Your task to perform on an android device: Search for a new desk on IKEA Image 0: 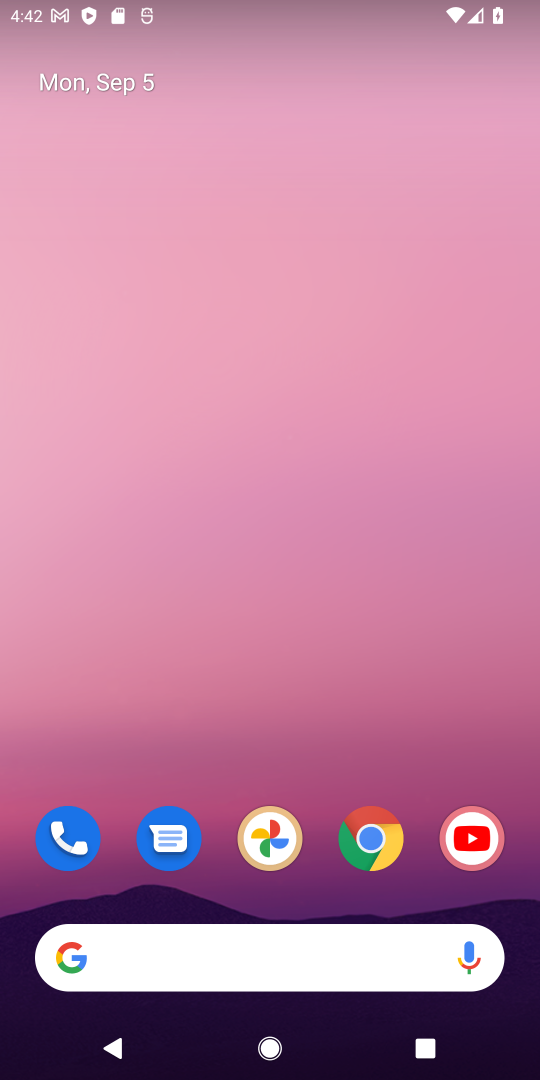
Step 0: drag from (249, 773) to (370, 337)
Your task to perform on an android device: Search for a new desk on IKEA Image 1: 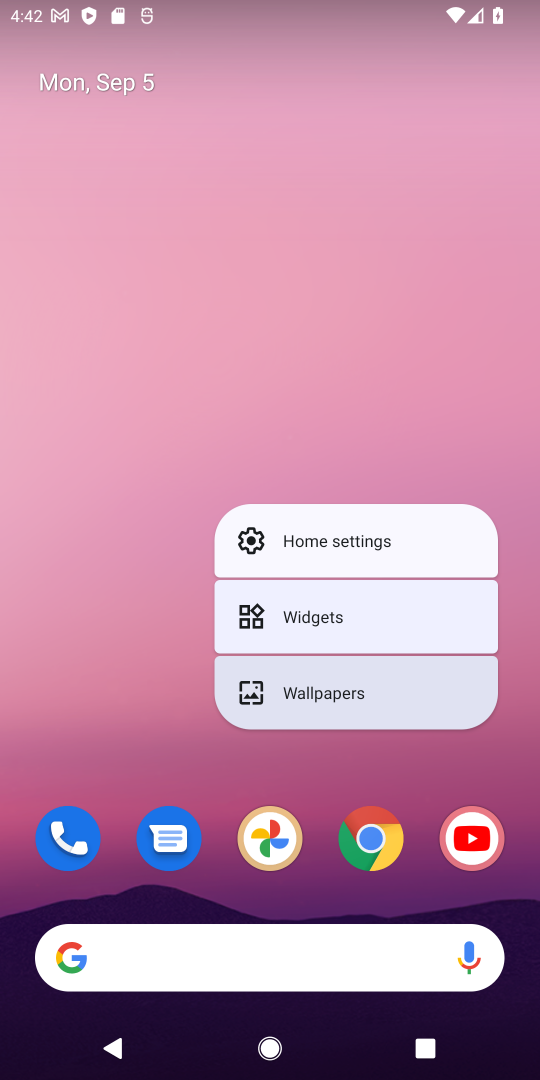
Step 1: click (181, 407)
Your task to perform on an android device: Search for a new desk on IKEA Image 2: 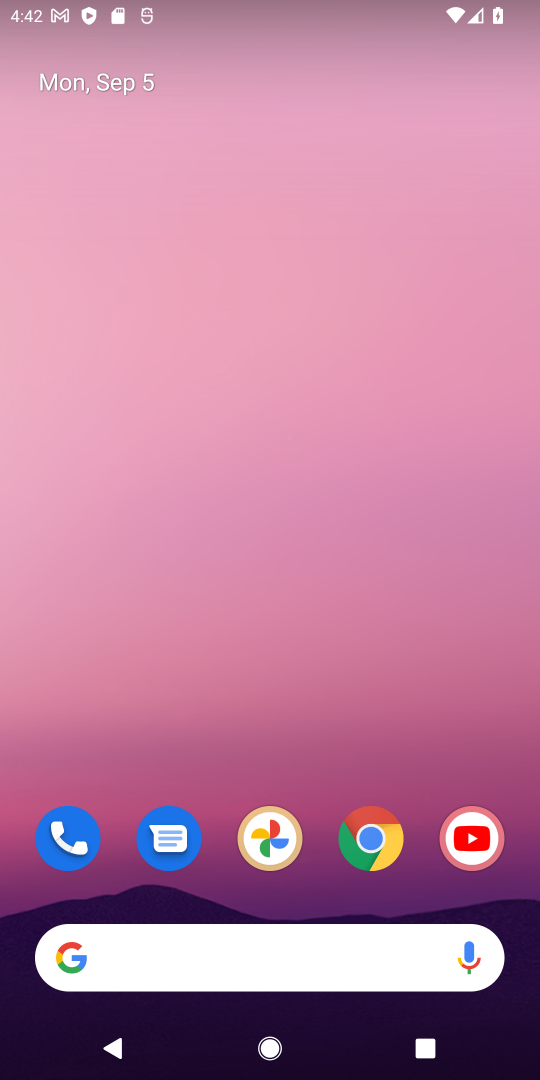
Step 2: drag from (316, 868) to (378, 51)
Your task to perform on an android device: Search for a new desk on IKEA Image 3: 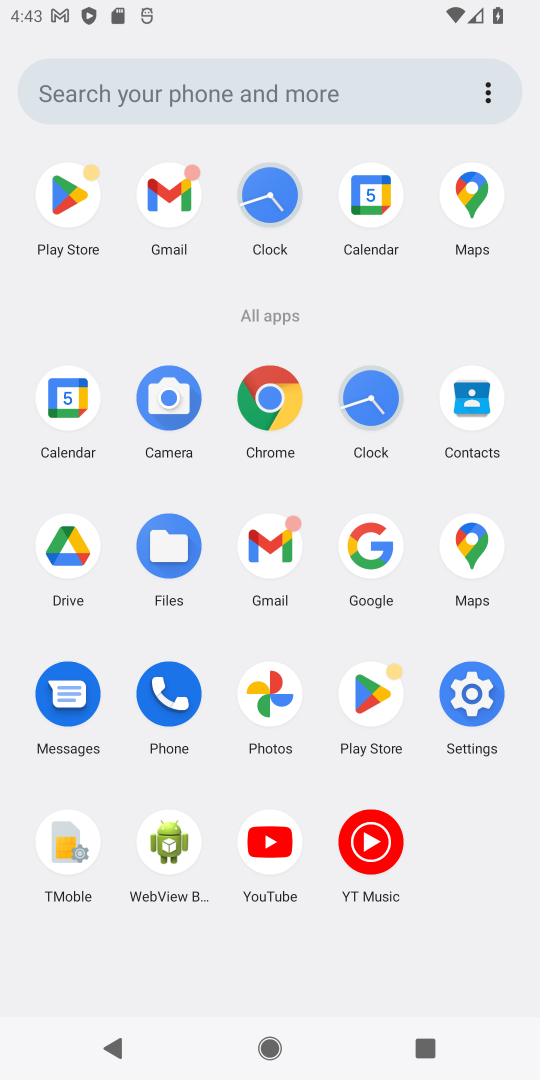
Step 3: click (277, 409)
Your task to perform on an android device: Search for a new desk on IKEA Image 4: 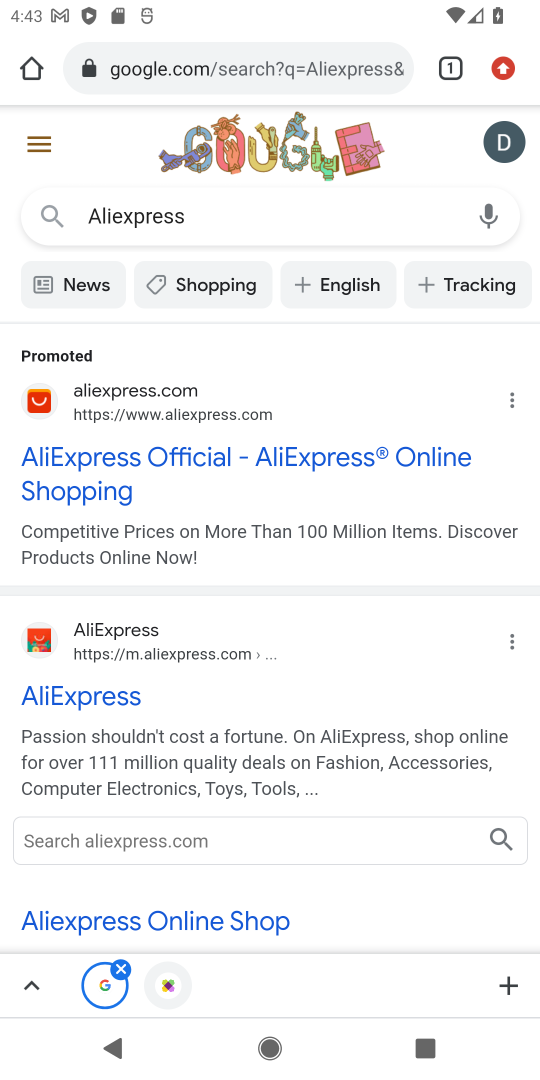
Step 4: click (189, 66)
Your task to perform on an android device: Search for a new desk on IKEA Image 5: 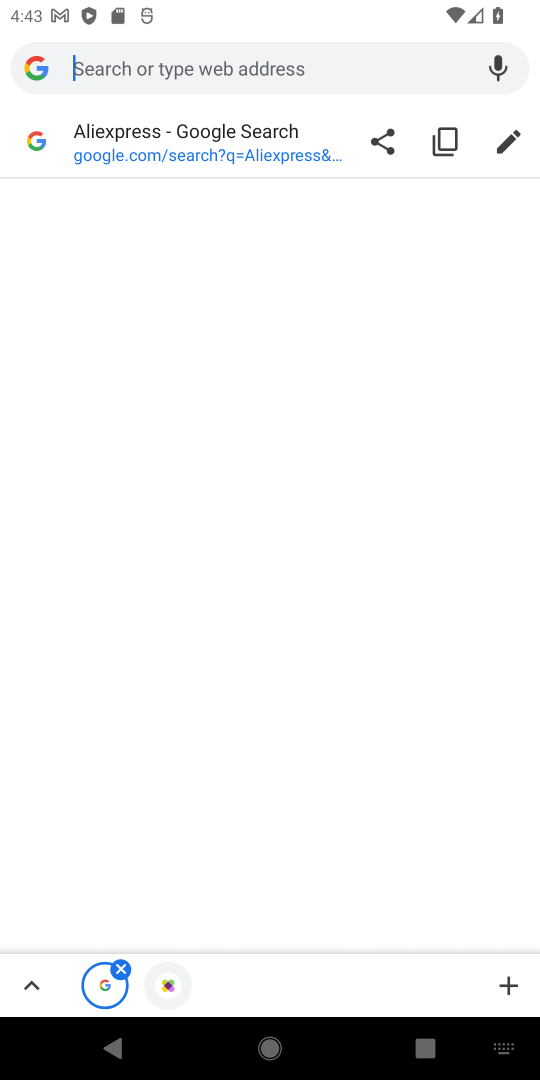
Step 5: type " IKEA"
Your task to perform on an android device: Search for a new desk on IKEA Image 6: 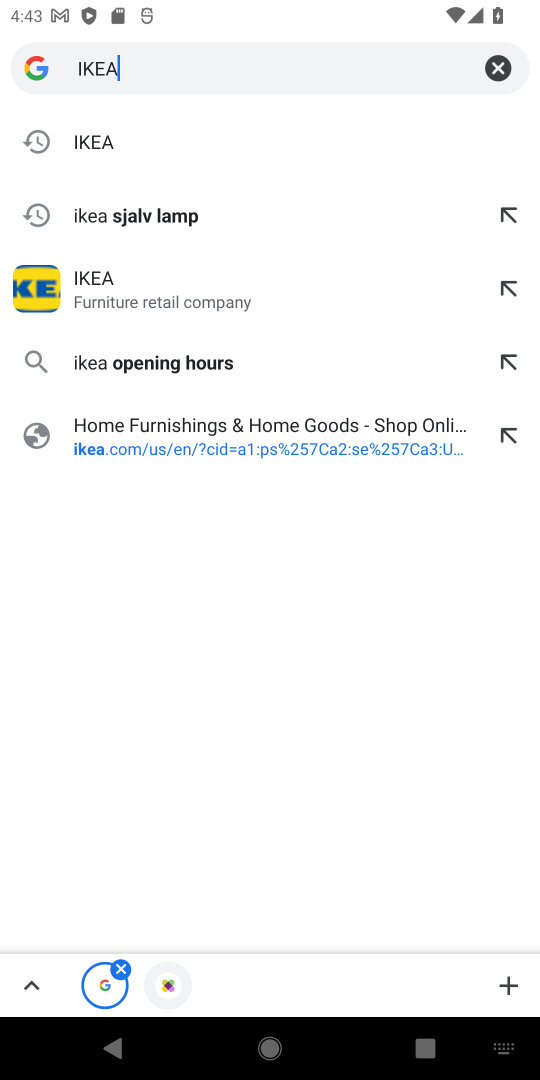
Step 6: click (103, 147)
Your task to perform on an android device: Search for a new desk on IKEA Image 7: 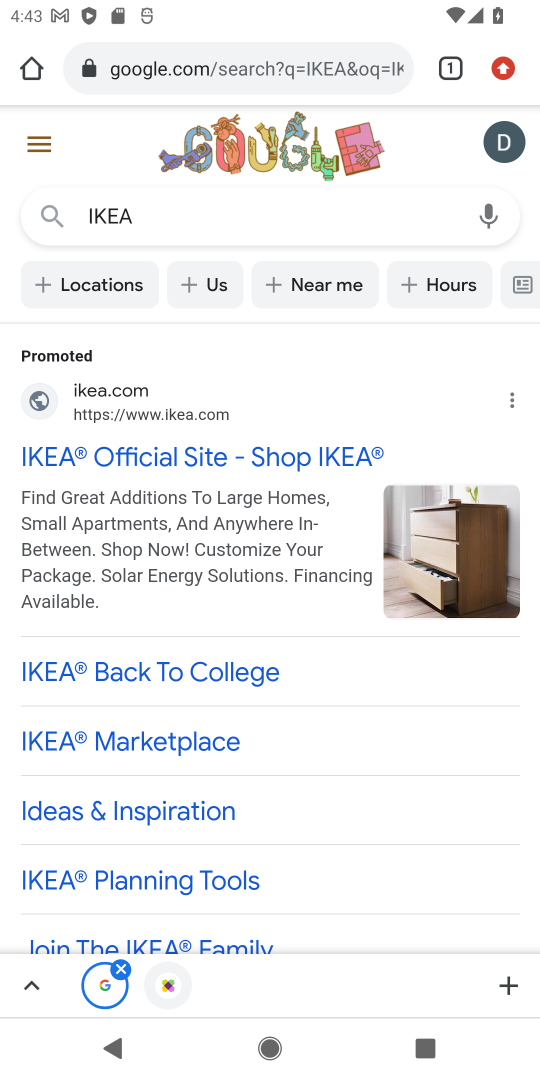
Step 7: click (146, 457)
Your task to perform on an android device: Search for a new desk on IKEA Image 8: 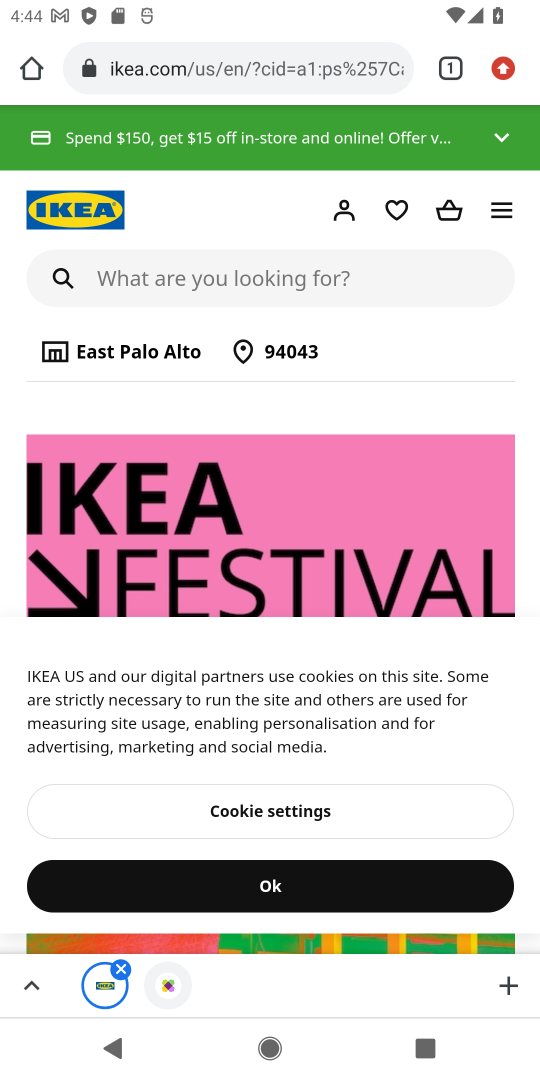
Step 8: click (283, 286)
Your task to perform on an android device: Search for a new desk on IKEA Image 9: 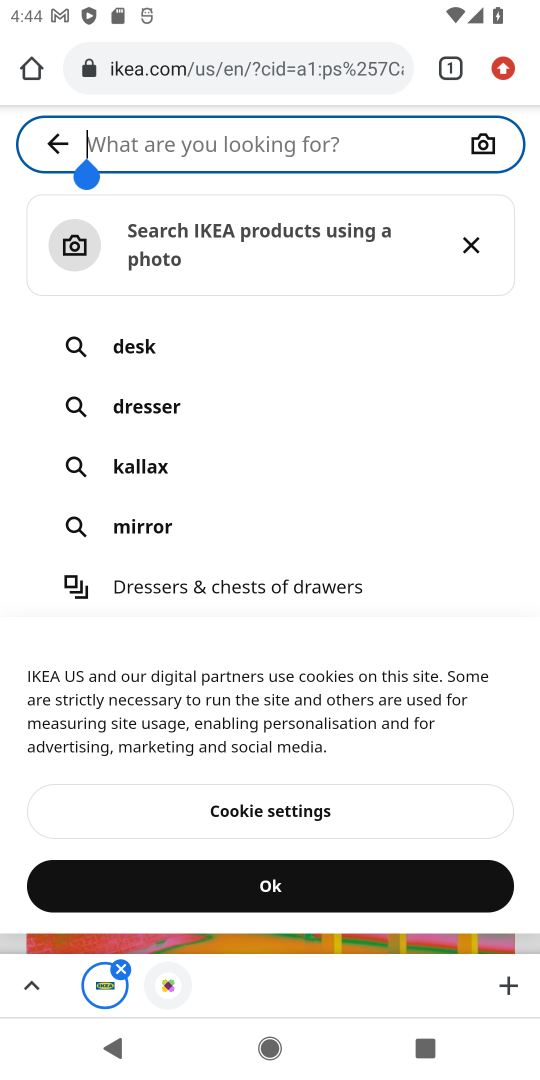
Step 9: type " new desk "
Your task to perform on an android device: Search for a new desk on IKEA Image 10: 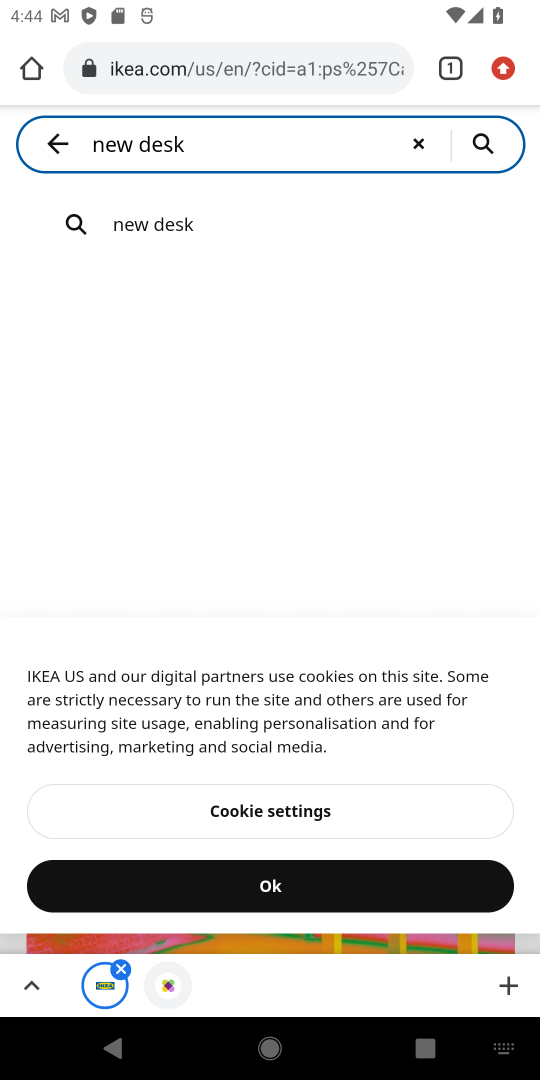
Step 10: click (196, 220)
Your task to perform on an android device: Search for a new desk on IKEA Image 11: 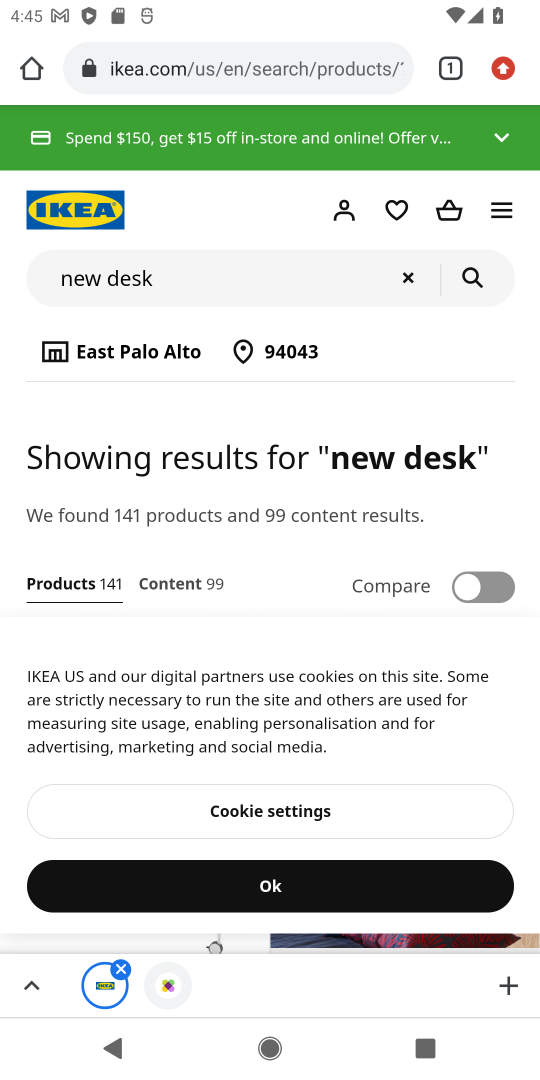
Step 11: task complete